Your task to perform on an android device: Search for sushi restaurants on Maps Image 0: 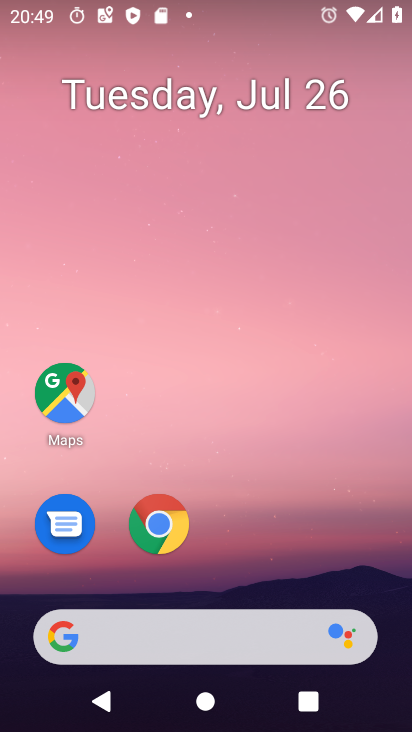
Step 0: click (57, 386)
Your task to perform on an android device: Search for sushi restaurants on Maps Image 1: 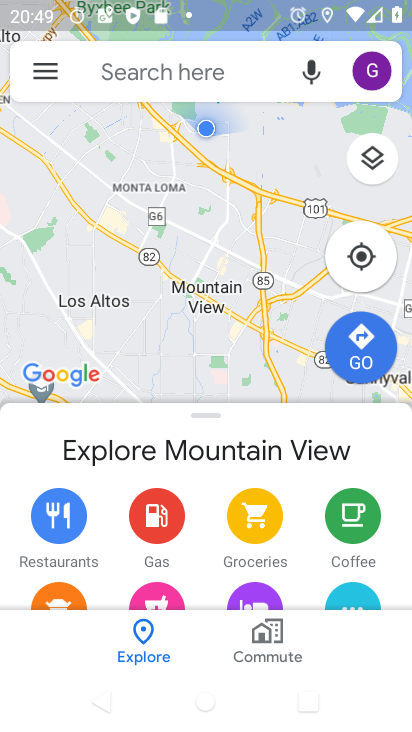
Step 1: click (159, 69)
Your task to perform on an android device: Search for sushi restaurants on Maps Image 2: 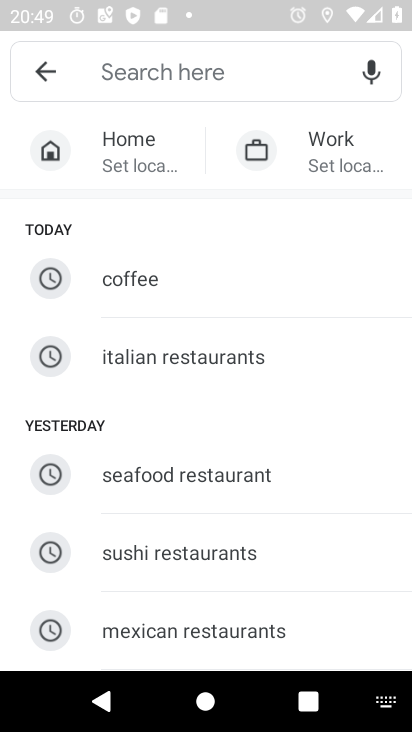
Step 2: click (178, 547)
Your task to perform on an android device: Search for sushi restaurants on Maps Image 3: 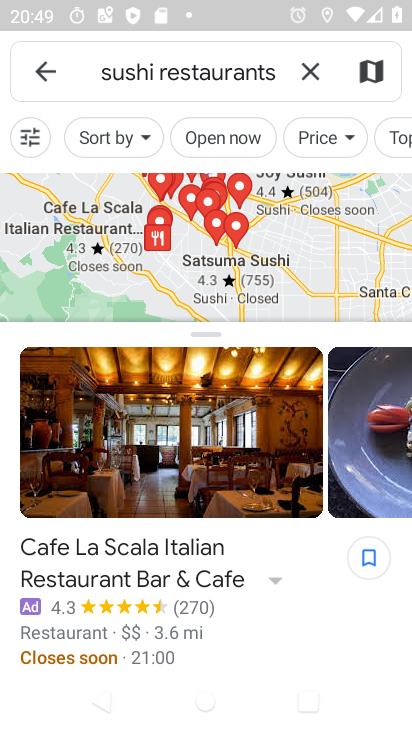
Step 3: task complete